Your task to perform on an android device: see creations saved in the google photos Image 0: 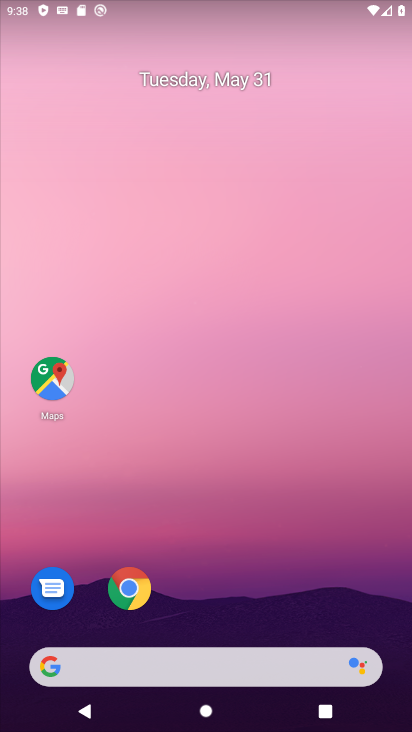
Step 0: drag from (144, 662) to (10, 87)
Your task to perform on an android device: see creations saved in the google photos Image 1: 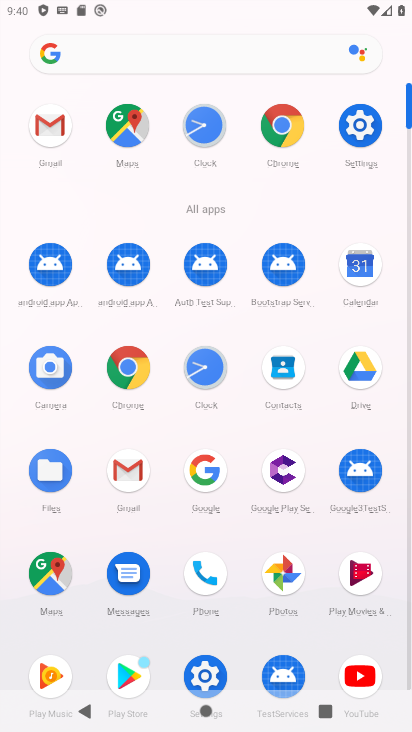
Step 1: click (277, 573)
Your task to perform on an android device: see creations saved in the google photos Image 2: 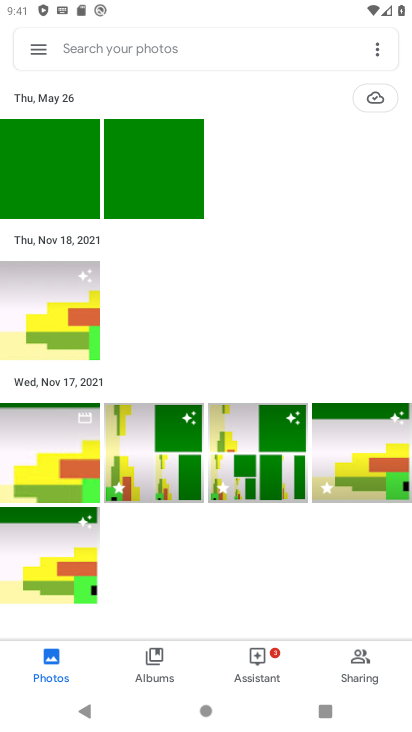
Step 2: click (257, 44)
Your task to perform on an android device: see creations saved in the google photos Image 3: 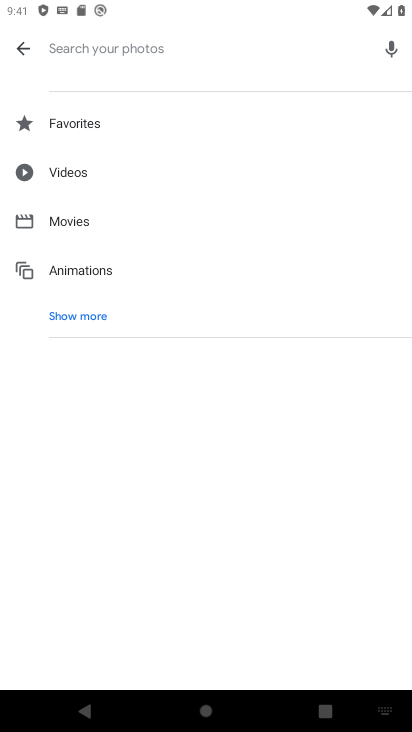
Step 3: click (91, 312)
Your task to perform on an android device: see creations saved in the google photos Image 4: 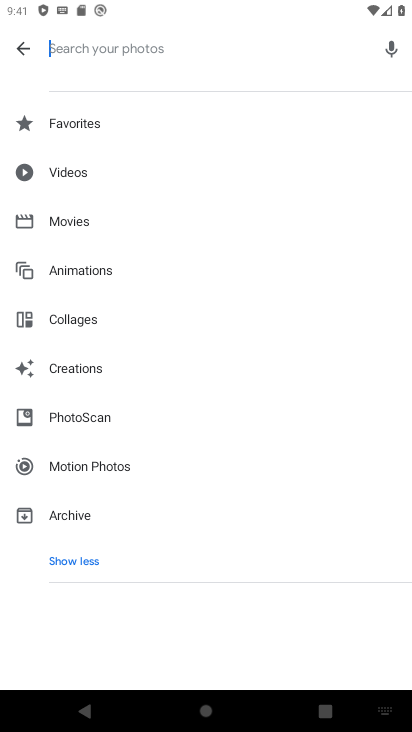
Step 4: click (134, 370)
Your task to perform on an android device: see creations saved in the google photos Image 5: 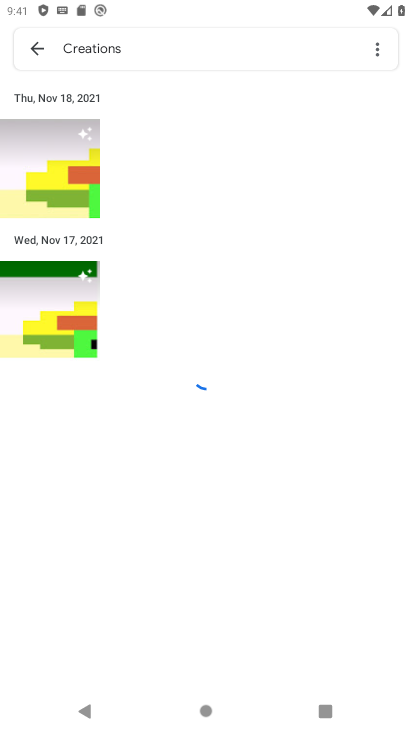
Step 5: task complete